Your task to perform on an android device: turn on sleep mode Image 0: 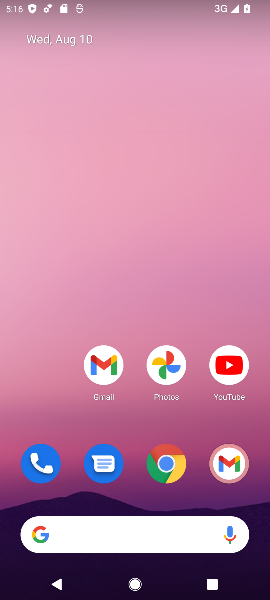
Step 0: drag from (139, 492) to (139, 54)
Your task to perform on an android device: turn on sleep mode Image 1: 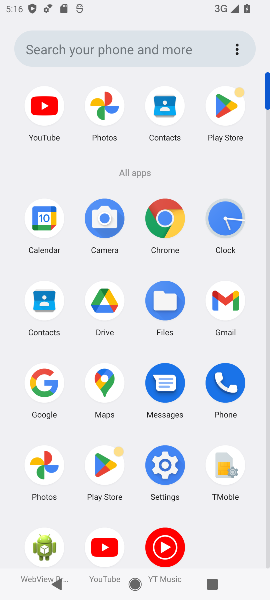
Step 1: click (167, 462)
Your task to perform on an android device: turn on sleep mode Image 2: 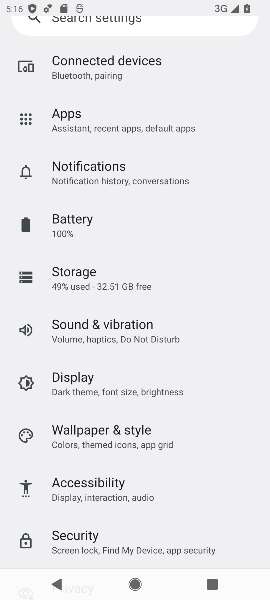
Step 2: click (75, 373)
Your task to perform on an android device: turn on sleep mode Image 3: 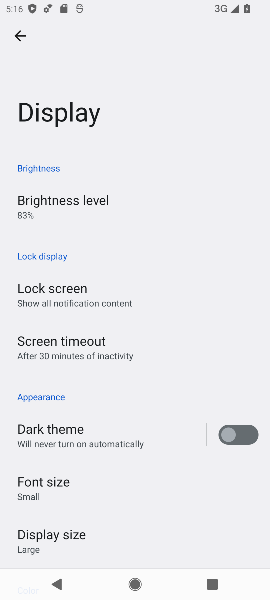
Step 3: task complete